Your task to perform on an android device: open app "ColorNote Notepad Notes" (install if not already installed) and go to login screen Image 0: 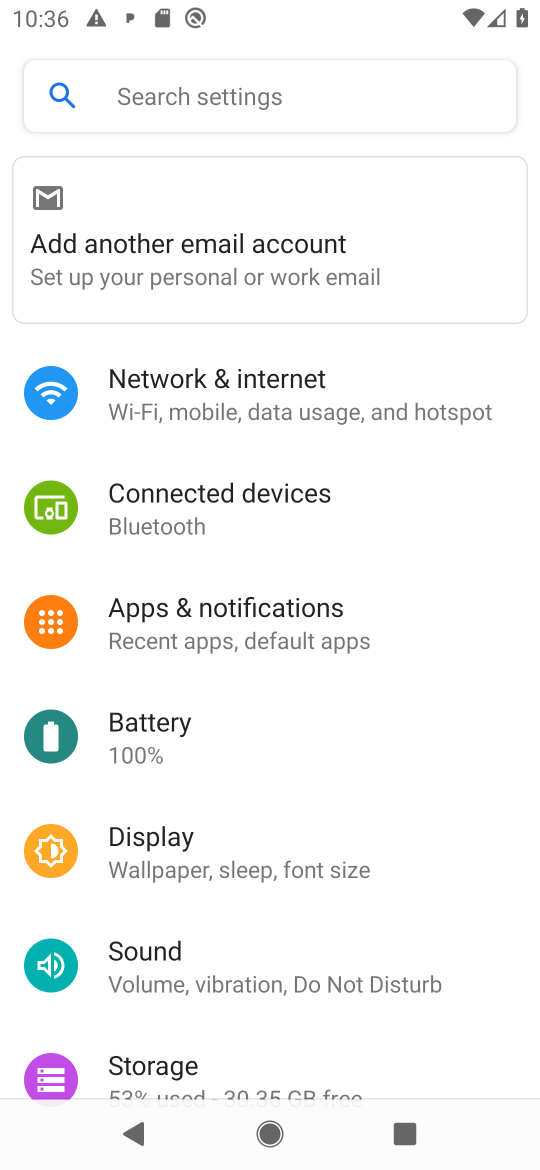
Step 0: press home button
Your task to perform on an android device: open app "ColorNote Notepad Notes" (install if not already installed) and go to login screen Image 1: 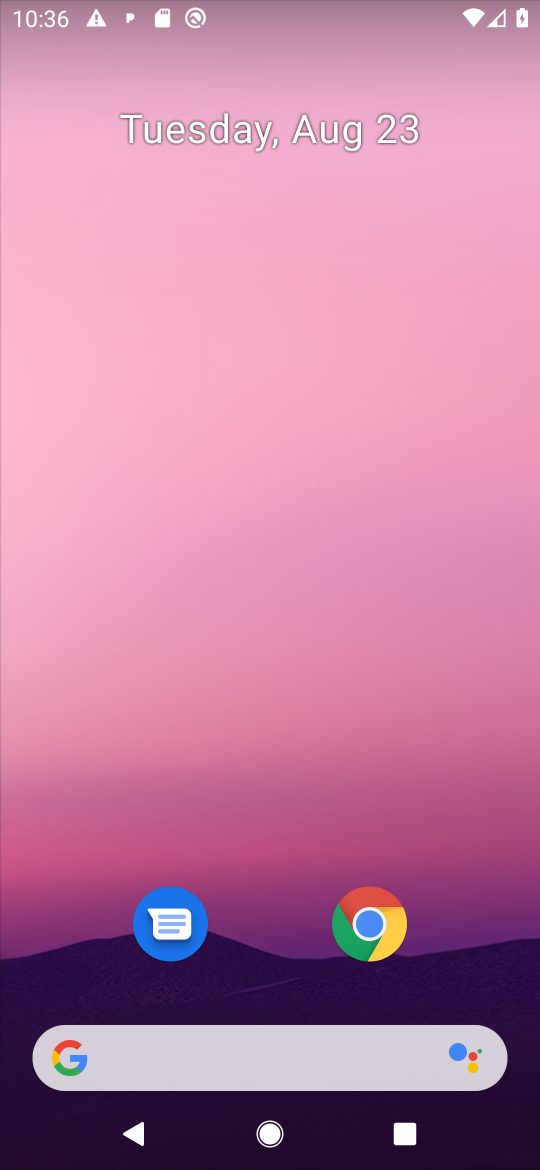
Step 1: drag from (442, 922) to (434, 220)
Your task to perform on an android device: open app "ColorNote Notepad Notes" (install if not already installed) and go to login screen Image 2: 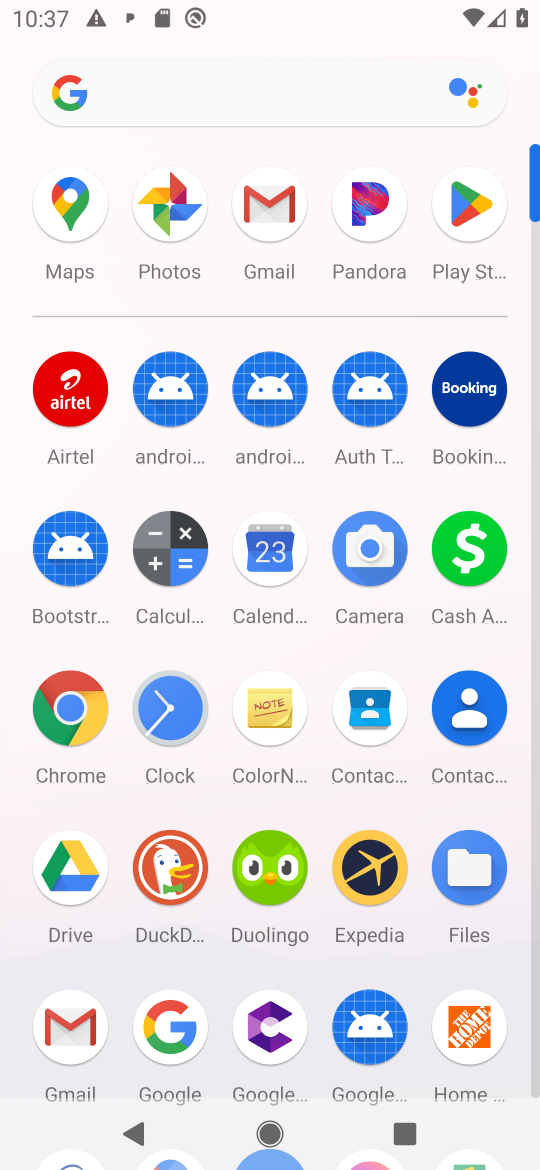
Step 2: click (476, 200)
Your task to perform on an android device: open app "ColorNote Notepad Notes" (install if not already installed) and go to login screen Image 3: 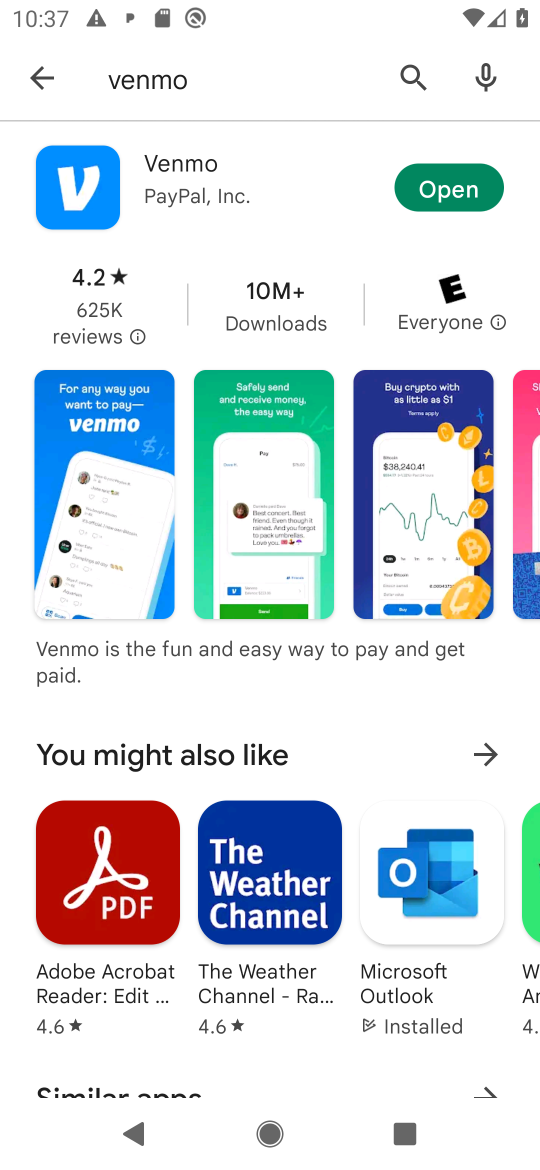
Step 3: press back button
Your task to perform on an android device: open app "ColorNote Notepad Notes" (install if not already installed) and go to login screen Image 4: 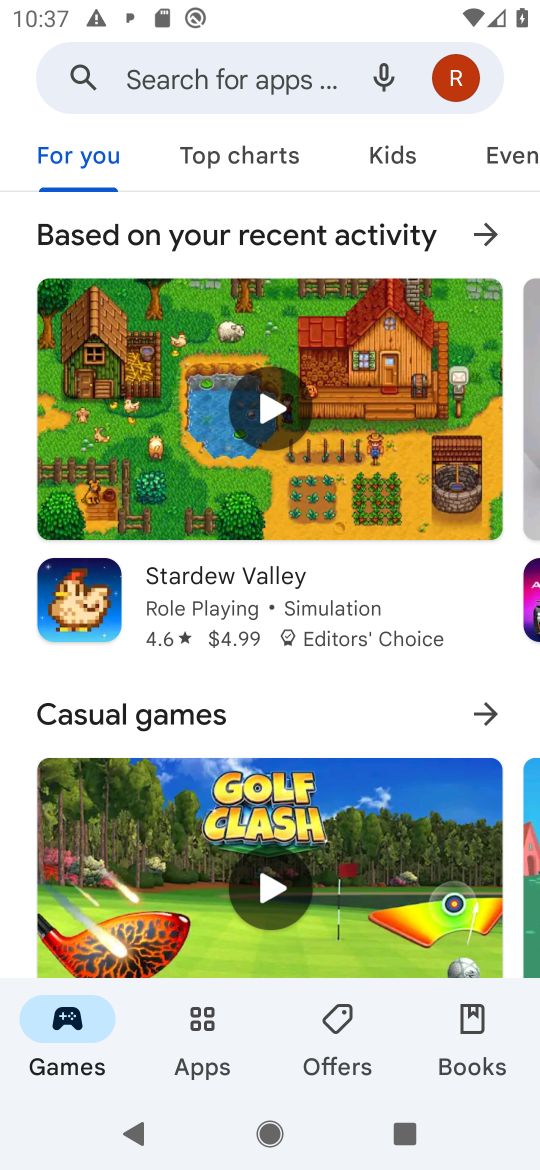
Step 4: click (261, 68)
Your task to perform on an android device: open app "ColorNote Notepad Notes" (install if not already installed) and go to login screen Image 5: 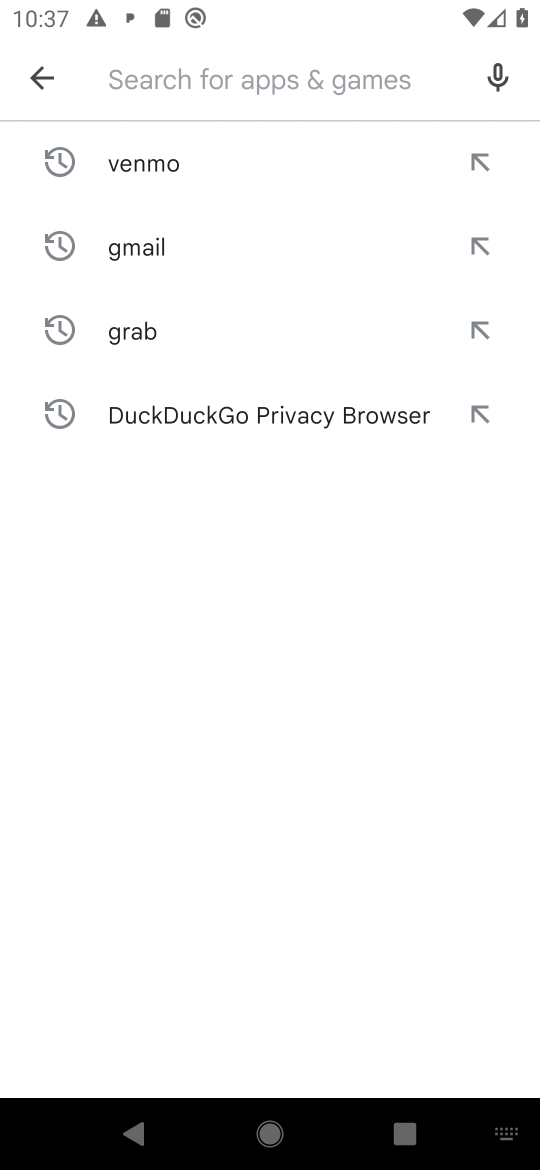
Step 5: type "ColorNote Notepad Notes"
Your task to perform on an android device: open app "ColorNote Notepad Notes" (install if not already installed) and go to login screen Image 6: 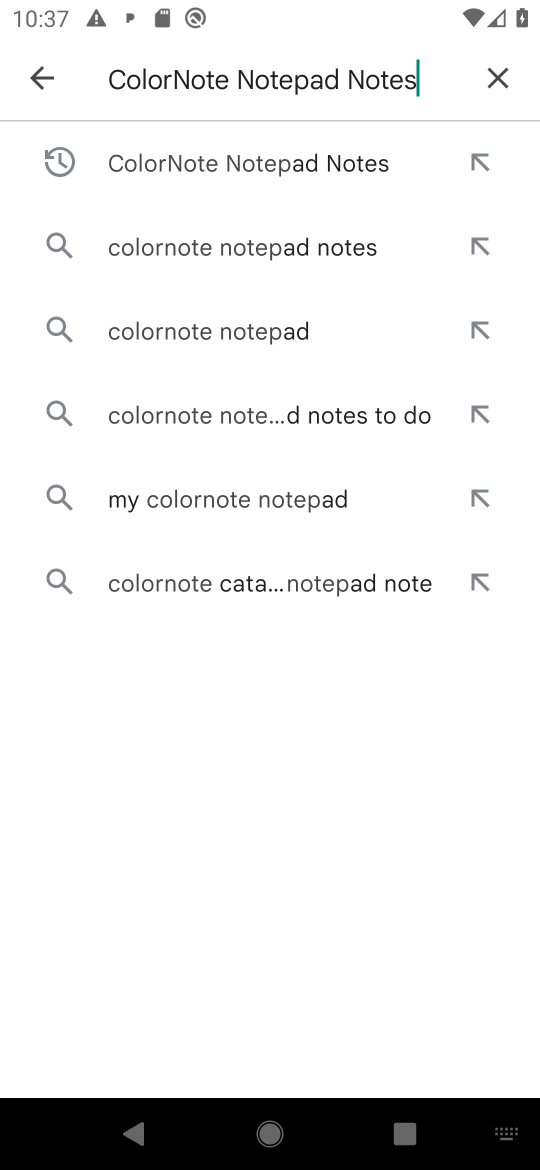
Step 6: press enter
Your task to perform on an android device: open app "ColorNote Notepad Notes" (install if not already installed) and go to login screen Image 7: 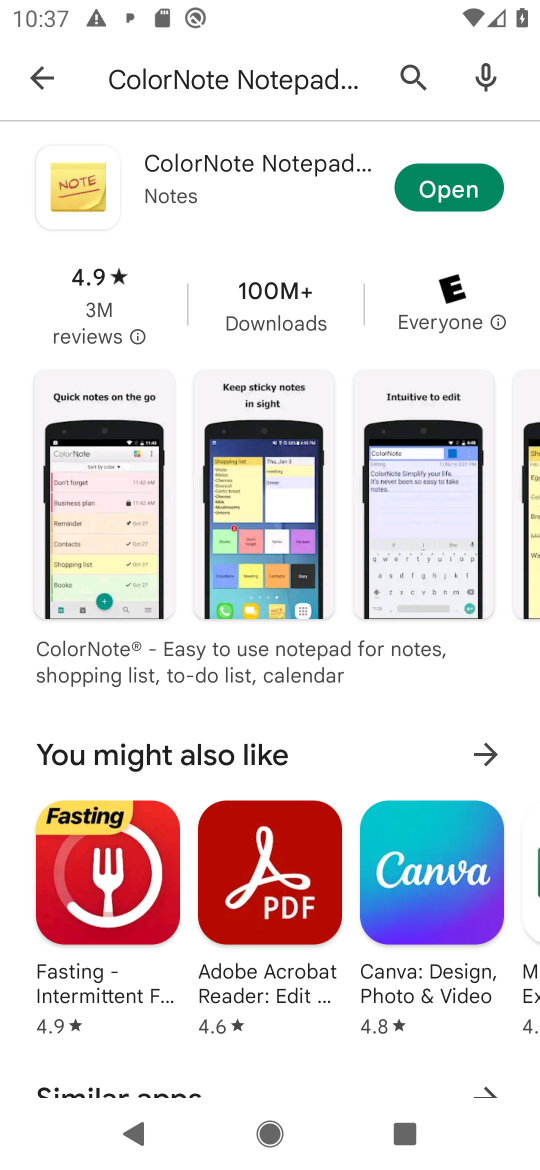
Step 7: click (449, 183)
Your task to perform on an android device: open app "ColorNote Notepad Notes" (install if not already installed) and go to login screen Image 8: 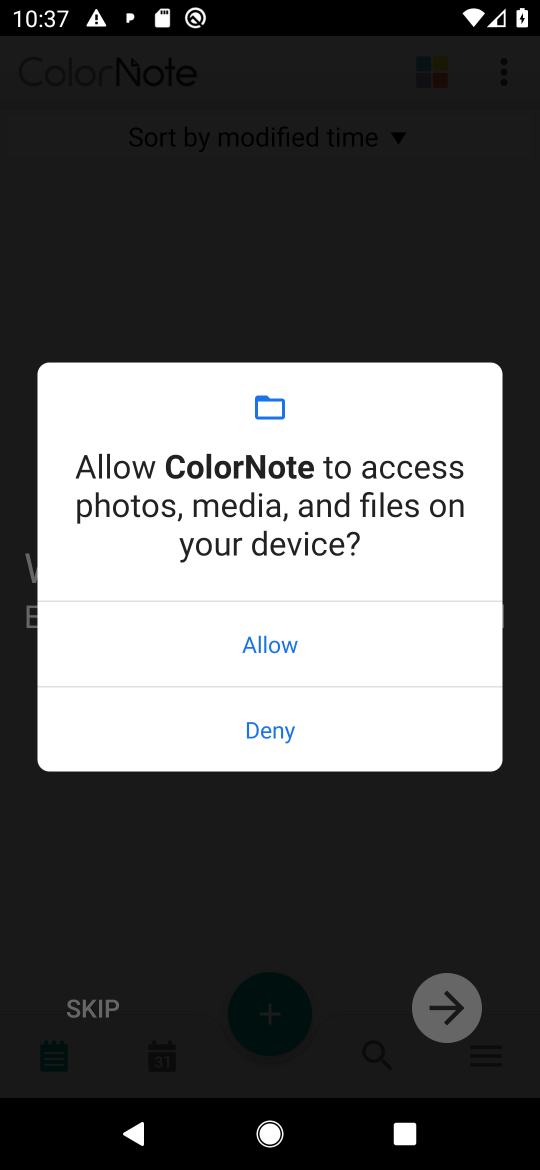
Step 8: click (361, 647)
Your task to perform on an android device: open app "ColorNote Notepad Notes" (install if not already installed) and go to login screen Image 9: 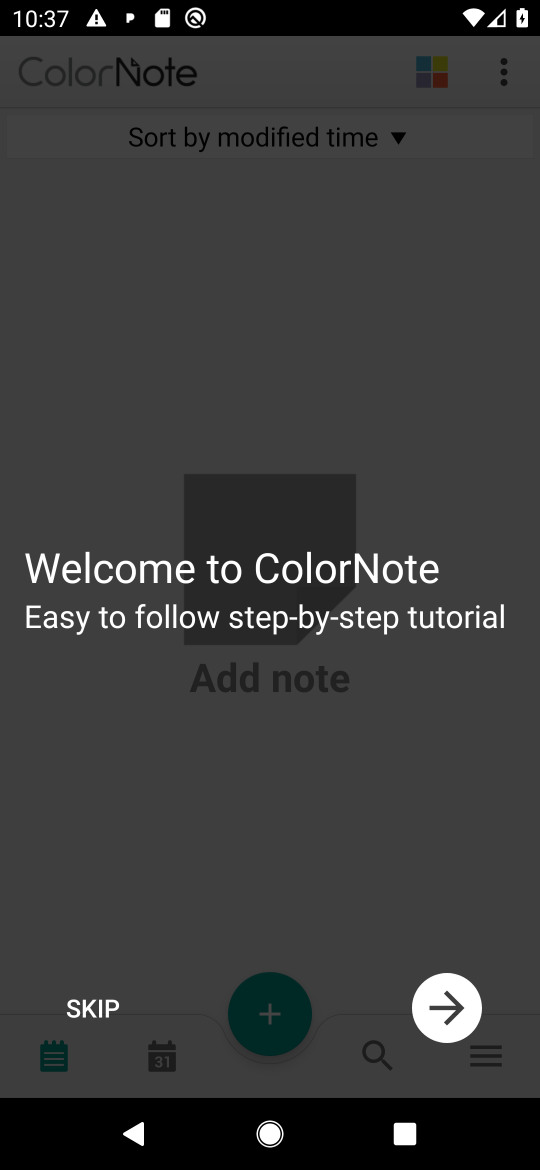
Step 9: click (458, 1010)
Your task to perform on an android device: open app "ColorNote Notepad Notes" (install if not already installed) and go to login screen Image 10: 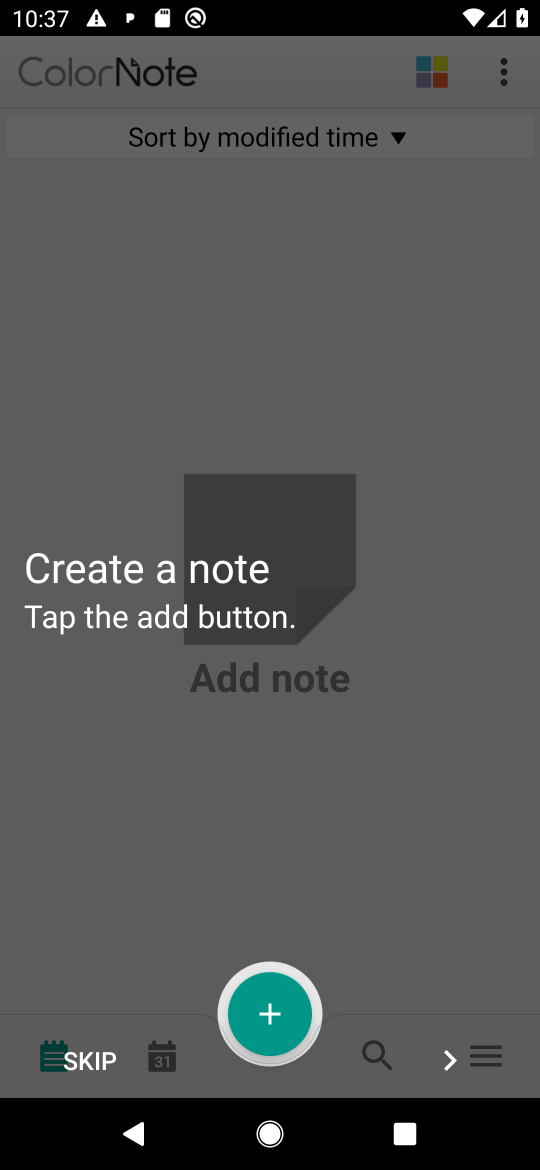
Step 10: click (452, 1063)
Your task to perform on an android device: open app "ColorNote Notepad Notes" (install if not already installed) and go to login screen Image 11: 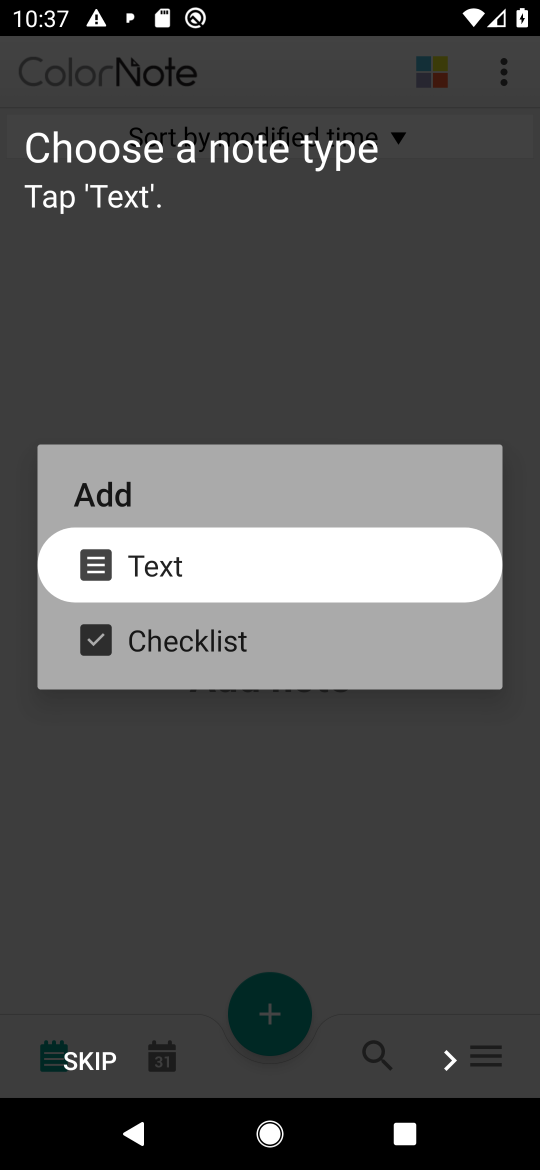
Step 11: click (82, 1048)
Your task to perform on an android device: open app "ColorNote Notepad Notes" (install if not already installed) and go to login screen Image 12: 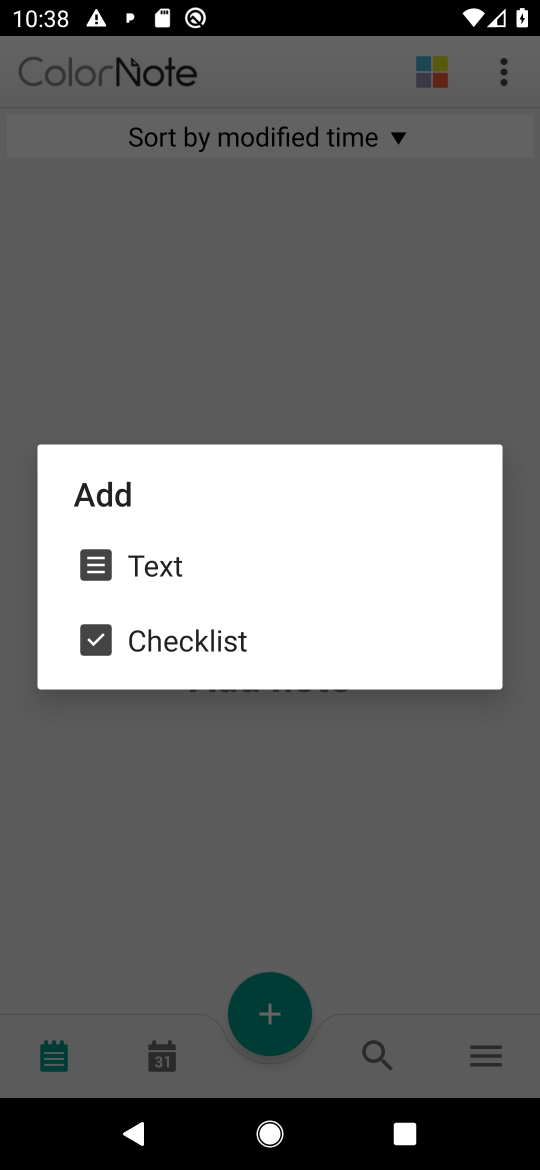
Step 12: click (412, 831)
Your task to perform on an android device: open app "ColorNote Notepad Notes" (install if not already installed) and go to login screen Image 13: 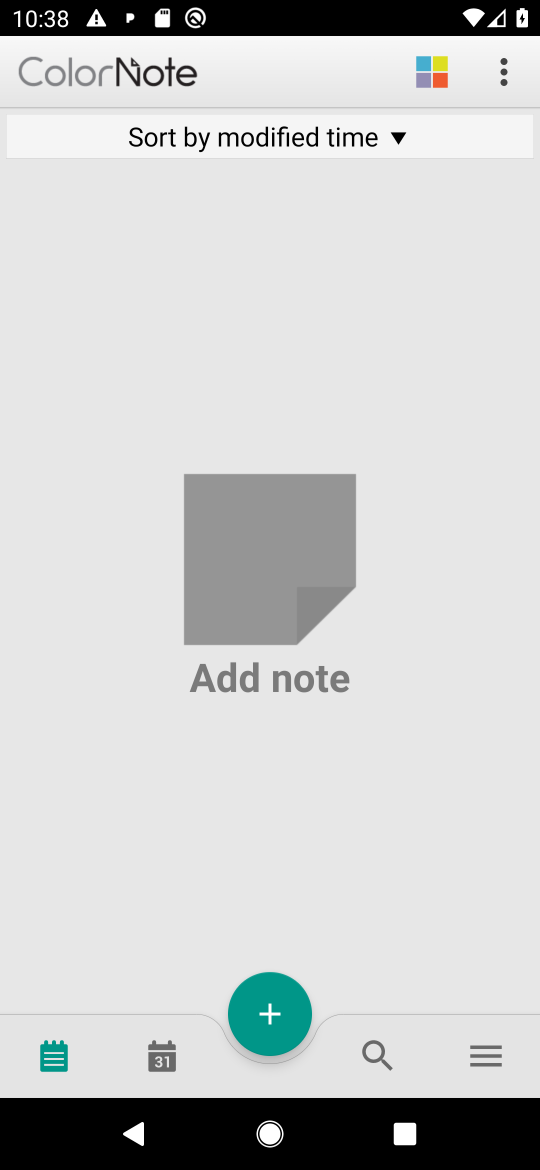
Step 13: click (497, 1058)
Your task to perform on an android device: open app "ColorNote Notepad Notes" (install if not already installed) and go to login screen Image 14: 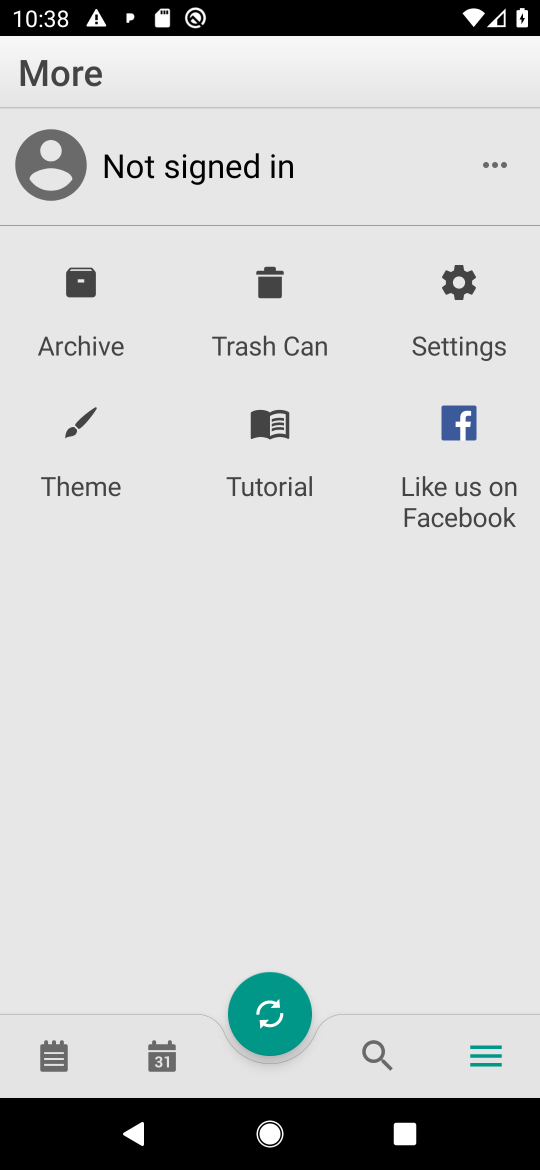
Step 14: click (493, 161)
Your task to perform on an android device: open app "ColorNote Notepad Notes" (install if not already installed) and go to login screen Image 15: 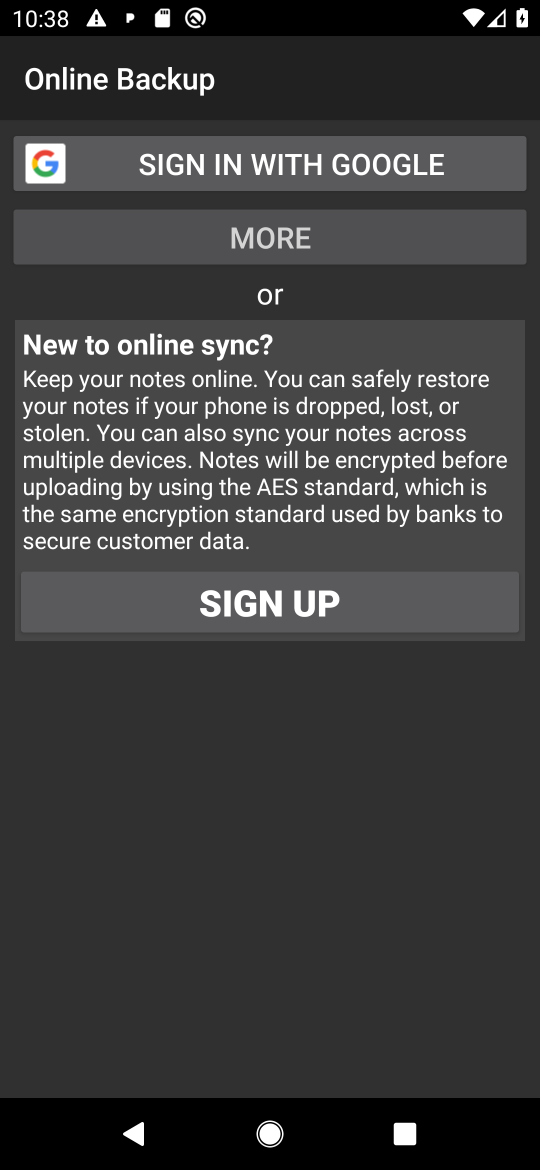
Step 15: task complete